Your task to perform on an android device: check storage Image 0: 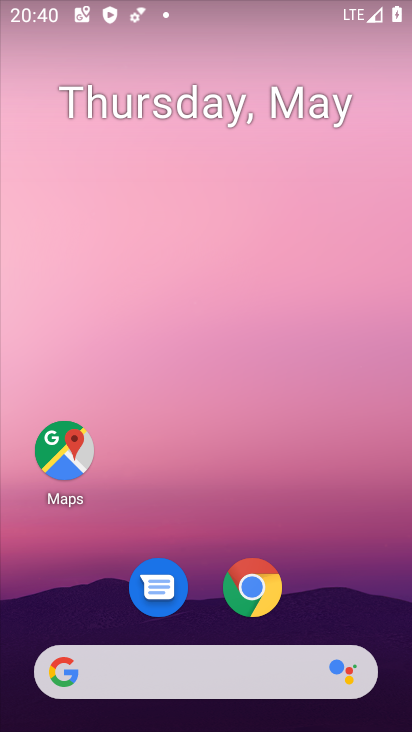
Step 0: drag from (125, 731) to (207, 72)
Your task to perform on an android device: check storage Image 1: 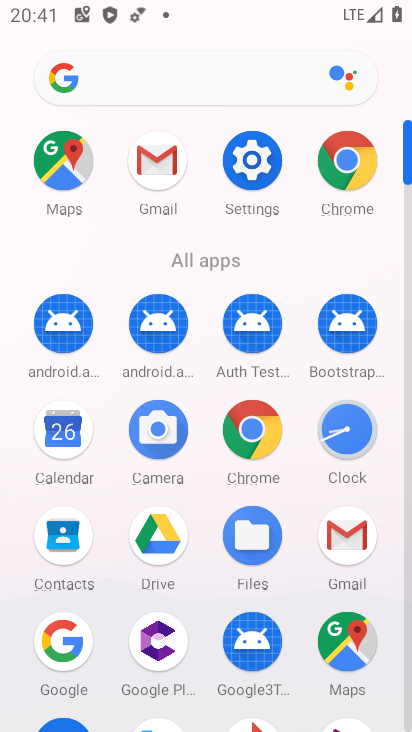
Step 1: click (246, 180)
Your task to perform on an android device: check storage Image 2: 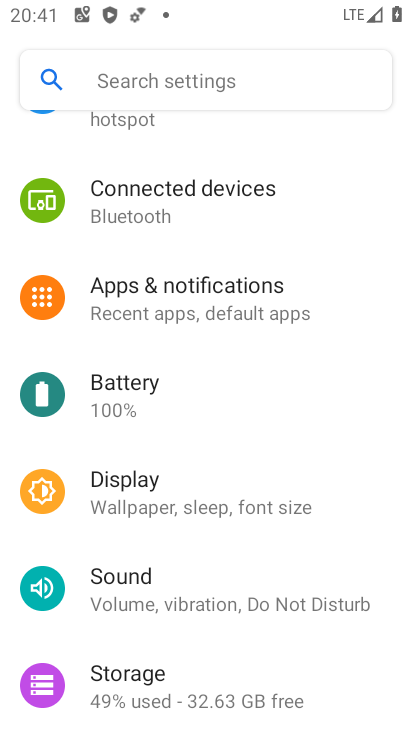
Step 2: click (153, 686)
Your task to perform on an android device: check storage Image 3: 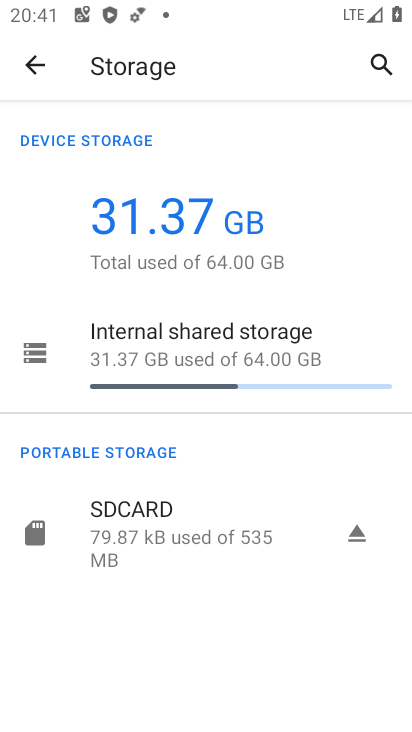
Step 3: task complete